Your task to perform on an android device: Go to internet settings Image 0: 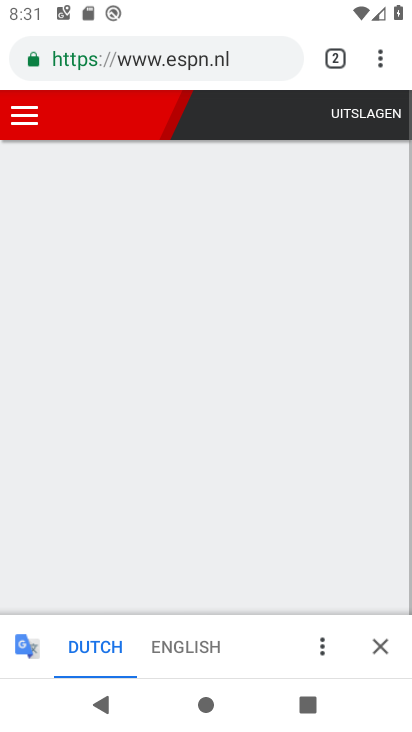
Step 0: press home button
Your task to perform on an android device: Go to internet settings Image 1: 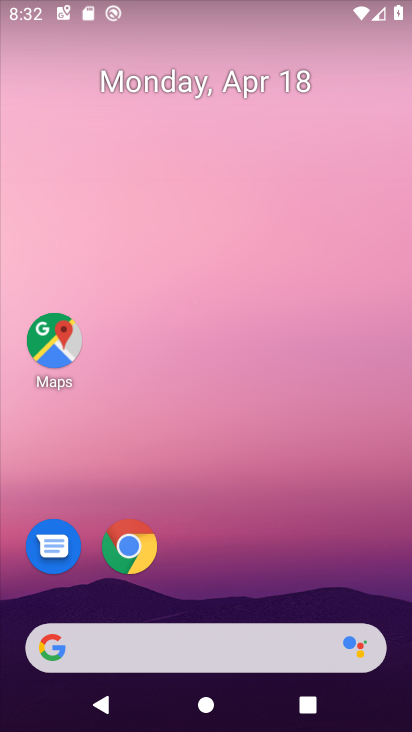
Step 1: drag from (372, 587) to (253, 91)
Your task to perform on an android device: Go to internet settings Image 2: 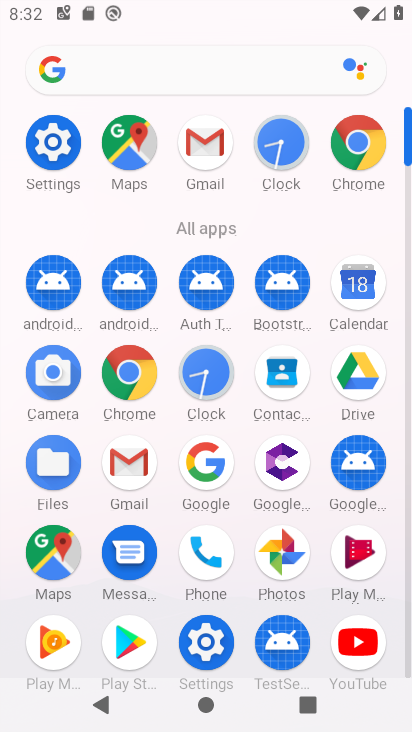
Step 2: click (59, 170)
Your task to perform on an android device: Go to internet settings Image 3: 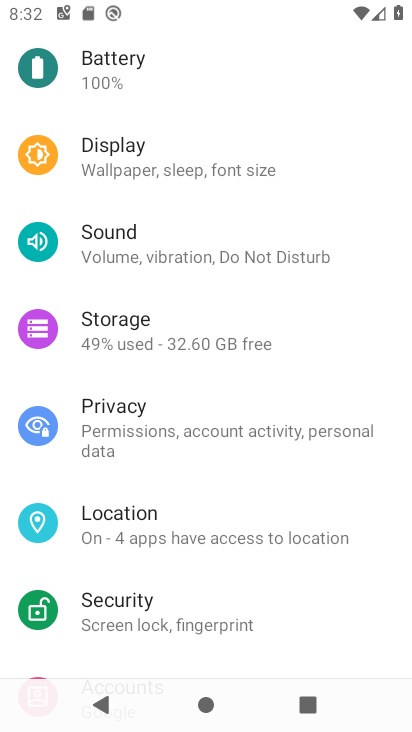
Step 3: drag from (274, 108) to (410, 535)
Your task to perform on an android device: Go to internet settings Image 4: 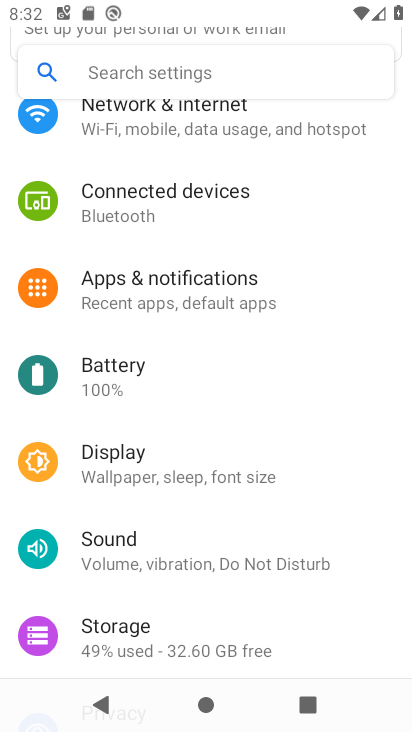
Step 4: click (225, 147)
Your task to perform on an android device: Go to internet settings Image 5: 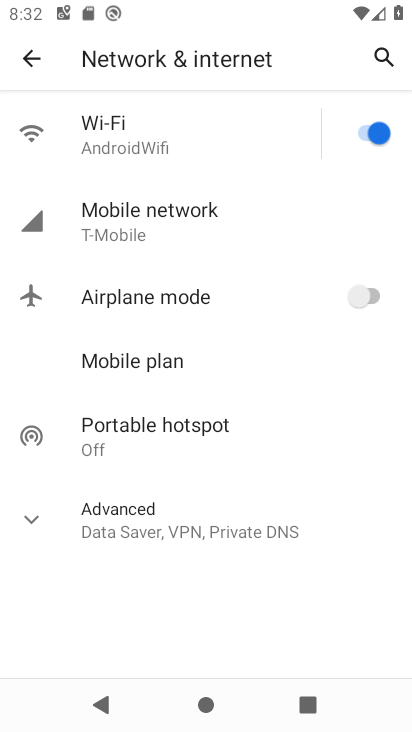
Step 5: task complete